Your task to perform on an android device: add a contact Image 0: 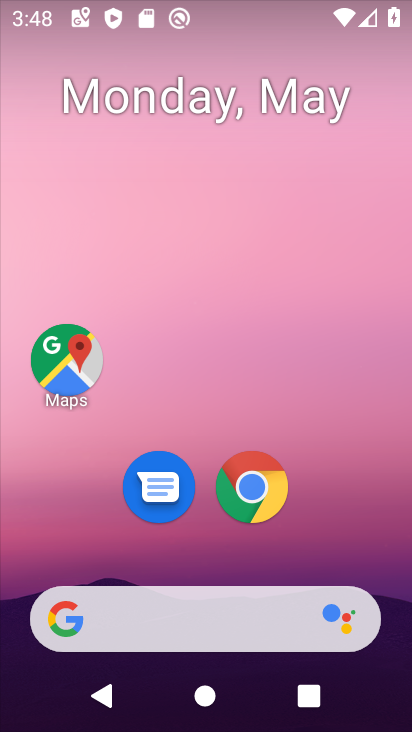
Step 0: drag from (209, 519) to (238, 237)
Your task to perform on an android device: add a contact Image 1: 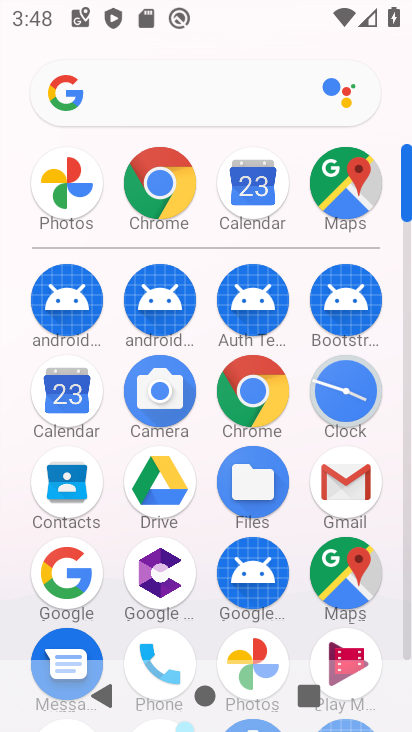
Step 1: click (60, 484)
Your task to perform on an android device: add a contact Image 2: 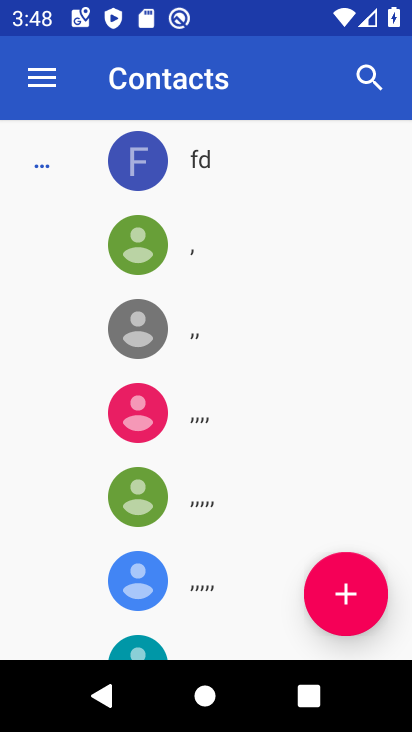
Step 2: click (346, 603)
Your task to perform on an android device: add a contact Image 3: 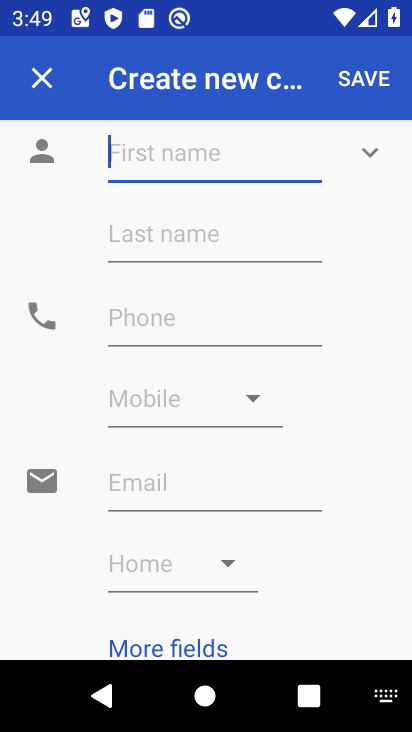
Step 3: type "ajay"
Your task to perform on an android device: add a contact Image 4: 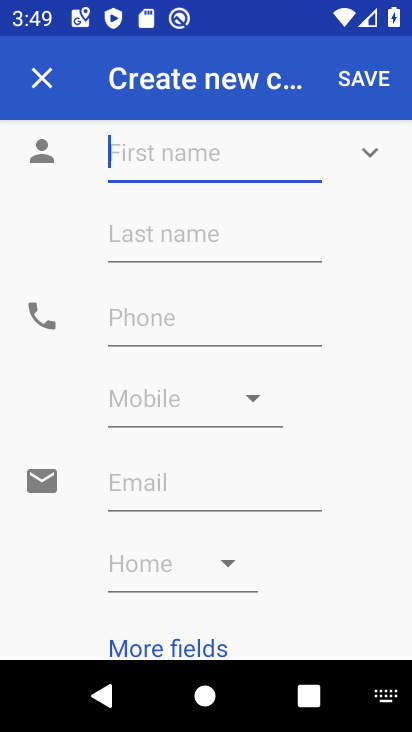
Step 4: click (167, 238)
Your task to perform on an android device: add a contact Image 5: 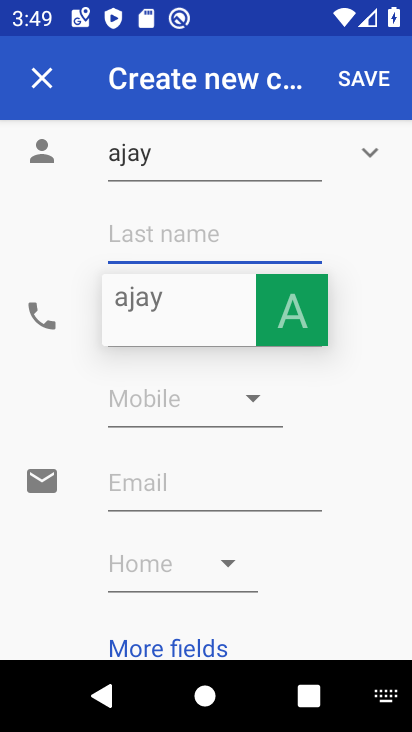
Step 5: click (130, 404)
Your task to perform on an android device: add a contact Image 6: 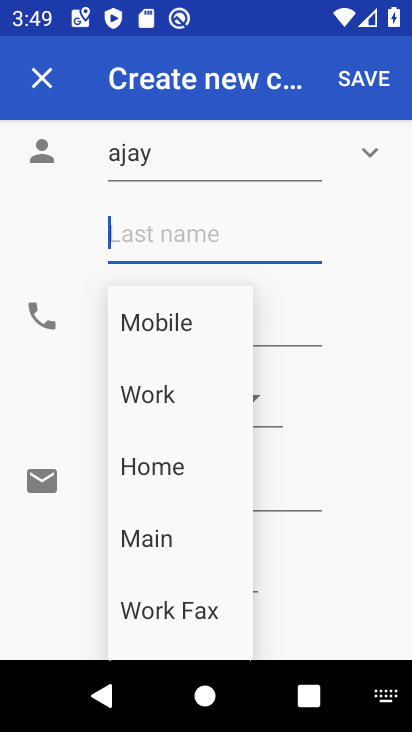
Step 6: click (341, 80)
Your task to perform on an android device: add a contact Image 7: 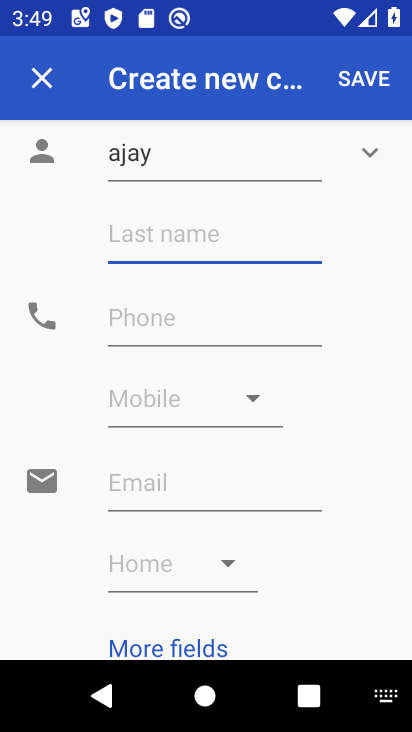
Step 7: click (356, 92)
Your task to perform on an android device: add a contact Image 8: 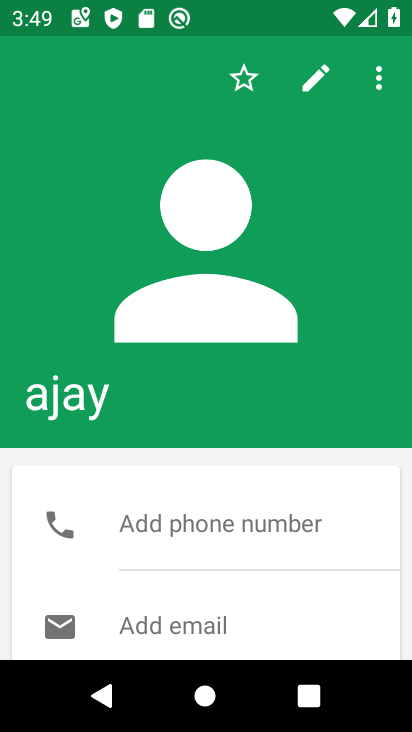
Step 8: task complete